Your task to perform on an android device: Is it going to rain tomorrow? Image 0: 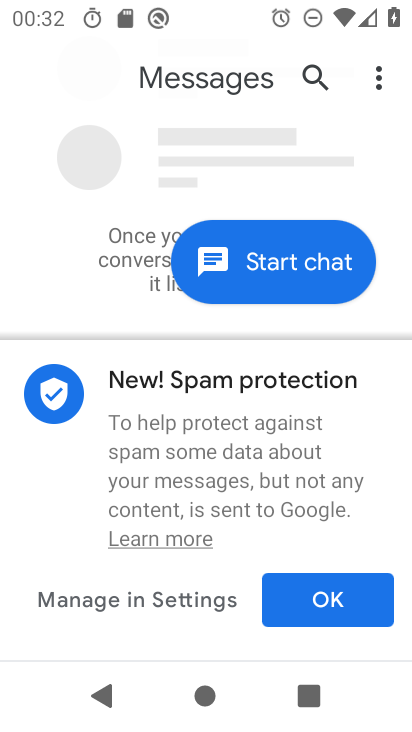
Step 0: press home button
Your task to perform on an android device: Is it going to rain tomorrow? Image 1: 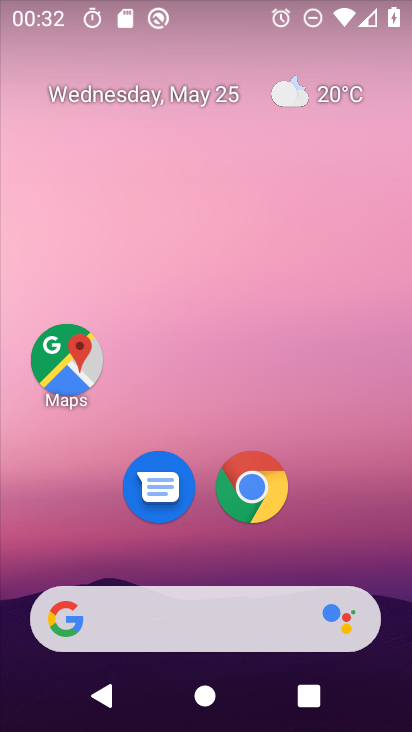
Step 1: click (337, 97)
Your task to perform on an android device: Is it going to rain tomorrow? Image 2: 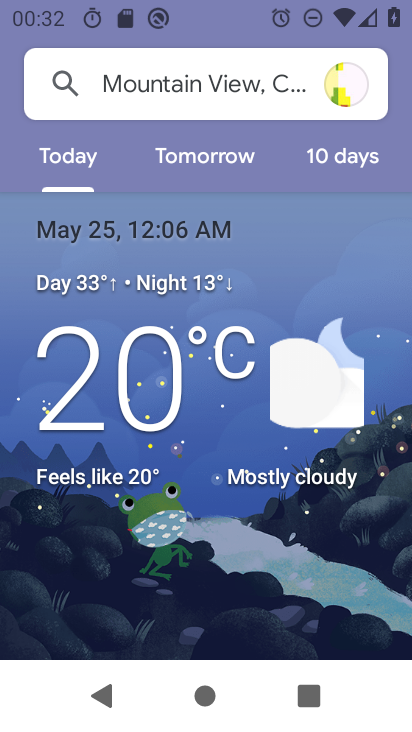
Step 2: click (187, 166)
Your task to perform on an android device: Is it going to rain tomorrow? Image 3: 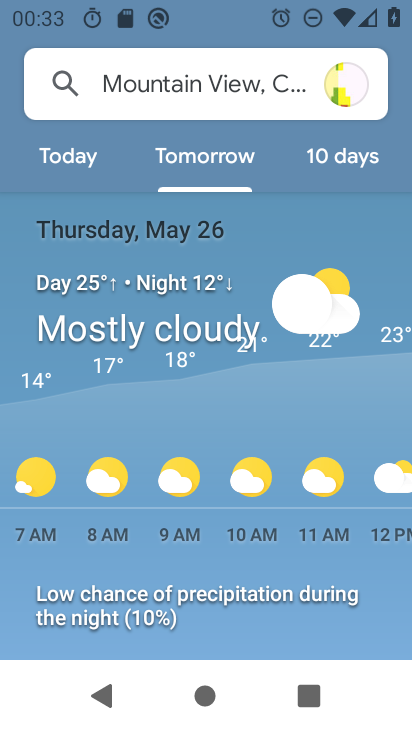
Step 3: task complete